Your task to perform on an android device: View the shopping cart on amazon. Search for "alienware aurora" on amazon, select the first entry, and add it to the cart. Image 0: 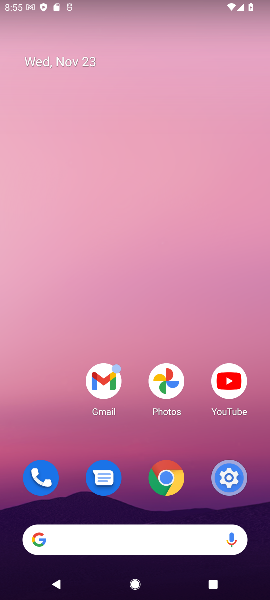
Step 0: click (93, 541)
Your task to perform on an android device: View the shopping cart on amazon. Search for "alienware aurora" on amazon, select the first entry, and add it to the cart. Image 1: 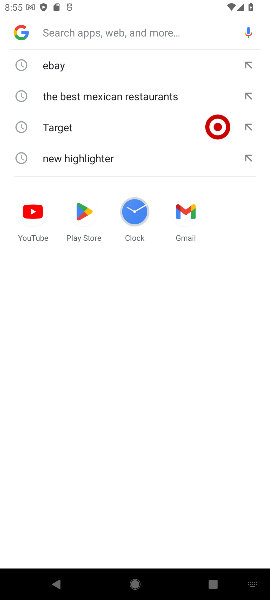
Step 1: type "amazon"
Your task to perform on an android device: View the shopping cart on amazon. Search for "alienware aurora" on amazon, select the first entry, and add it to the cart. Image 2: 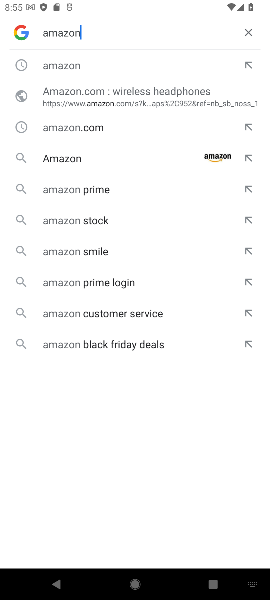
Step 2: click (86, 95)
Your task to perform on an android device: View the shopping cart on amazon. Search for "alienware aurora" on amazon, select the first entry, and add it to the cart. Image 3: 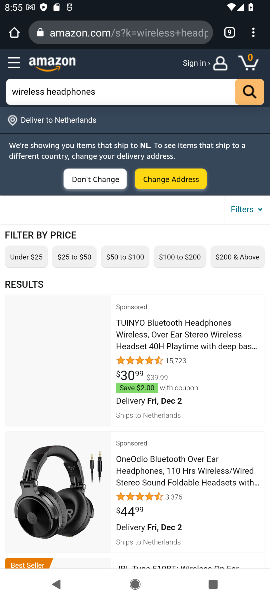
Step 3: click (82, 88)
Your task to perform on an android device: View the shopping cart on amazon. Search for "alienware aurora" on amazon, select the first entry, and add it to the cart. Image 4: 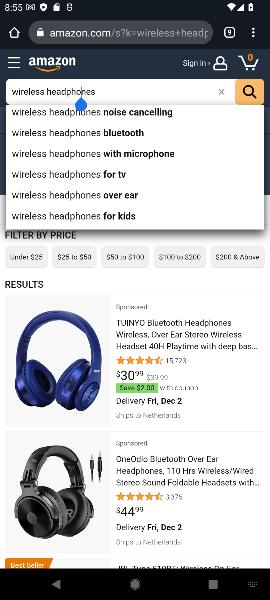
Step 4: click (218, 96)
Your task to perform on an android device: View the shopping cart on amazon. Search for "alienware aurora" on amazon, select the first entry, and add it to the cart. Image 5: 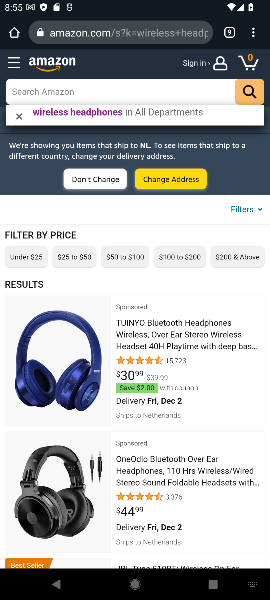
Step 5: type "alienware aurora"
Your task to perform on an android device: View the shopping cart on amazon. Search for "alienware aurora" on amazon, select the first entry, and add it to the cart. Image 6: 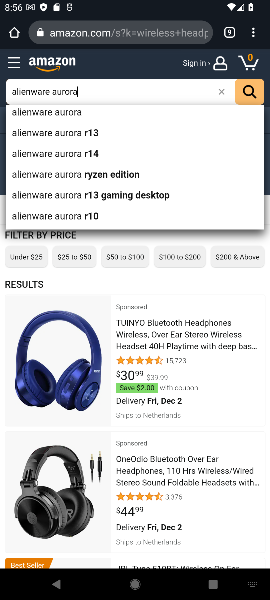
Step 6: click (87, 114)
Your task to perform on an android device: View the shopping cart on amazon. Search for "alienware aurora" on amazon, select the first entry, and add it to the cart. Image 7: 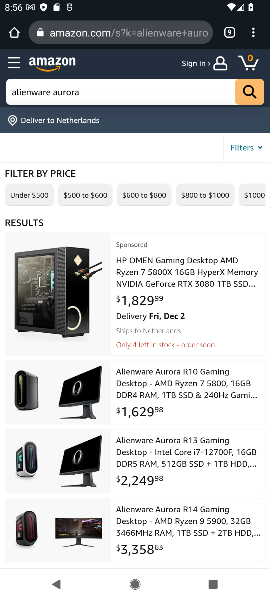
Step 7: click (136, 262)
Your task to perform on an android device: View the shopping cart on amazon. Search for "alienware aurora" on amazon, select the first entry, and add it to the cart. Image 8: 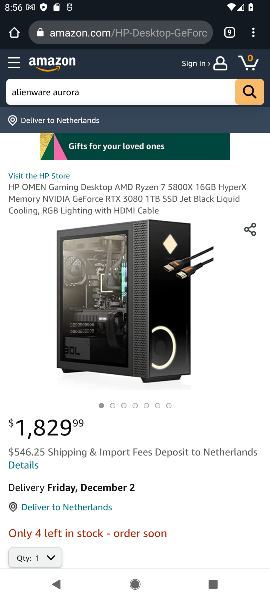
Step 8: drag from (179, 484) to (191, 321)
Your task to perform on an android device: View the shopping cart on amazon. Search for "alienware aurora" on amazon, select the first entry, and add it to the cart. Image 9: 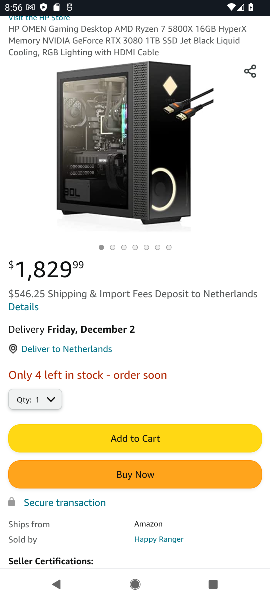
Step 9: click (130, 440)
Your task to perform on an android device: View the shopping cart on amazon. Search for "alienware aurora" on amazon, select the first entry, and add it to the cart. Image 10: 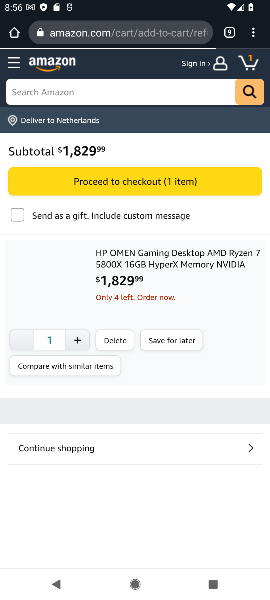
Step 10: task complete